Your task to perform on an android device: Go to display settings Image 0: 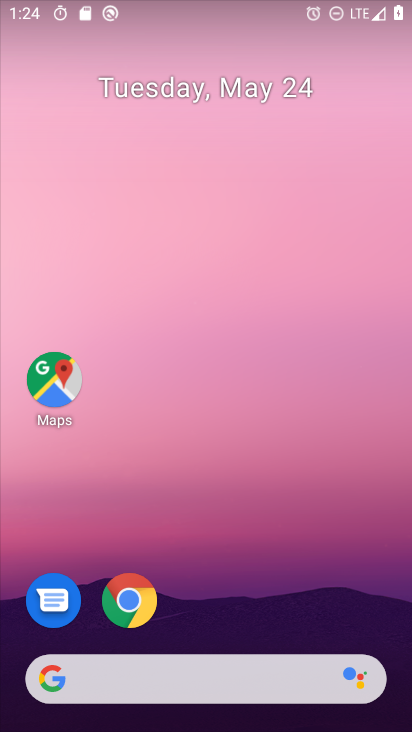
Step 0: drag from (277, 574) to (246, 165)
Your task to perform on an android device: Go to display settings Image 1: 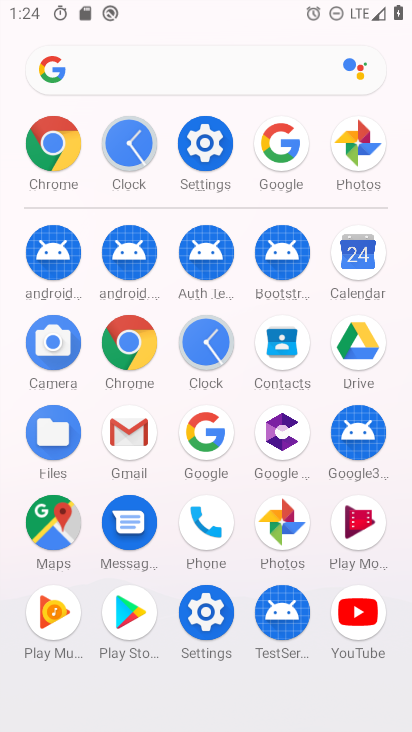
Step 1: click (213, 143)
Your task to perform on an android device: Go to display settings Image 2: 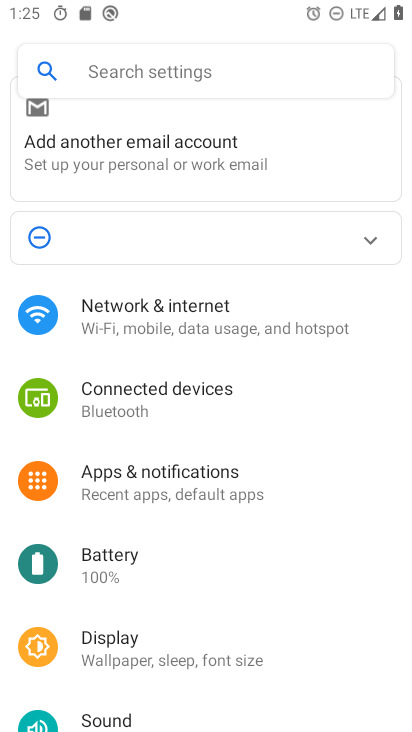
Step 2: click (170, 644)
Your task to perform on an android device: Go to display settings Image 3: 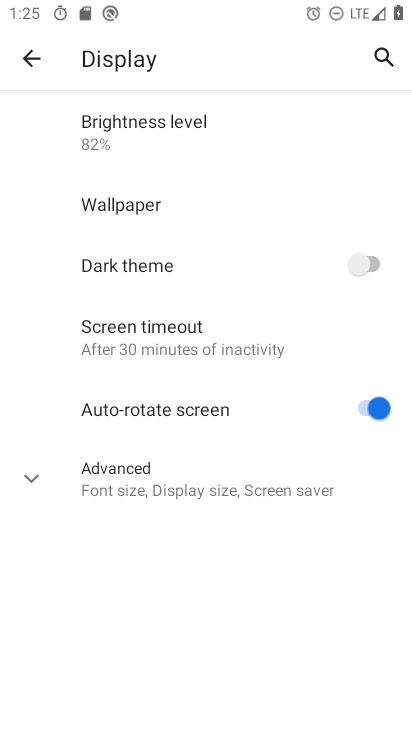
Step 3: task complete